Your task to perform on an android device: Empty the shopping cart on bestbuy.com. Image 0: 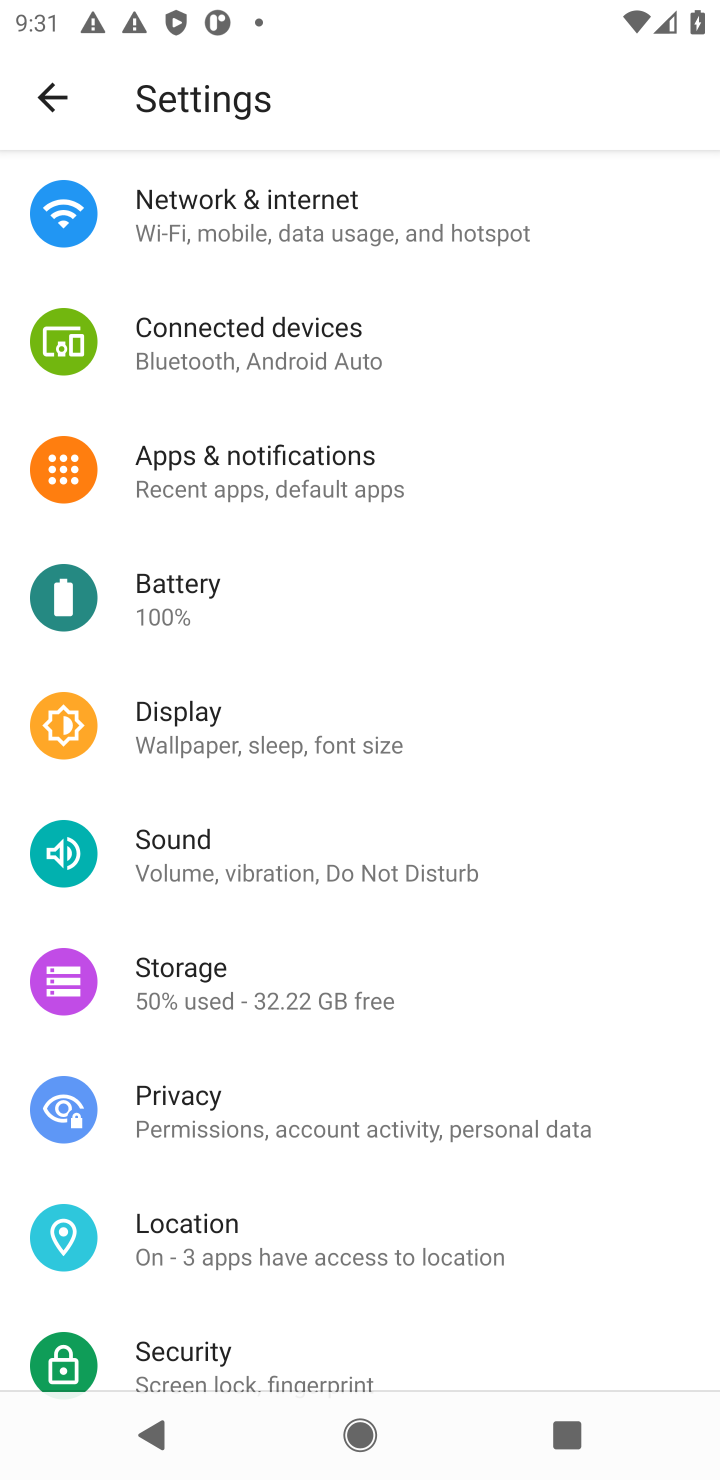
Step 0: press home button
Your task to perform on an android device: Empty the shopping cart on bestbuy.com. Image 1: 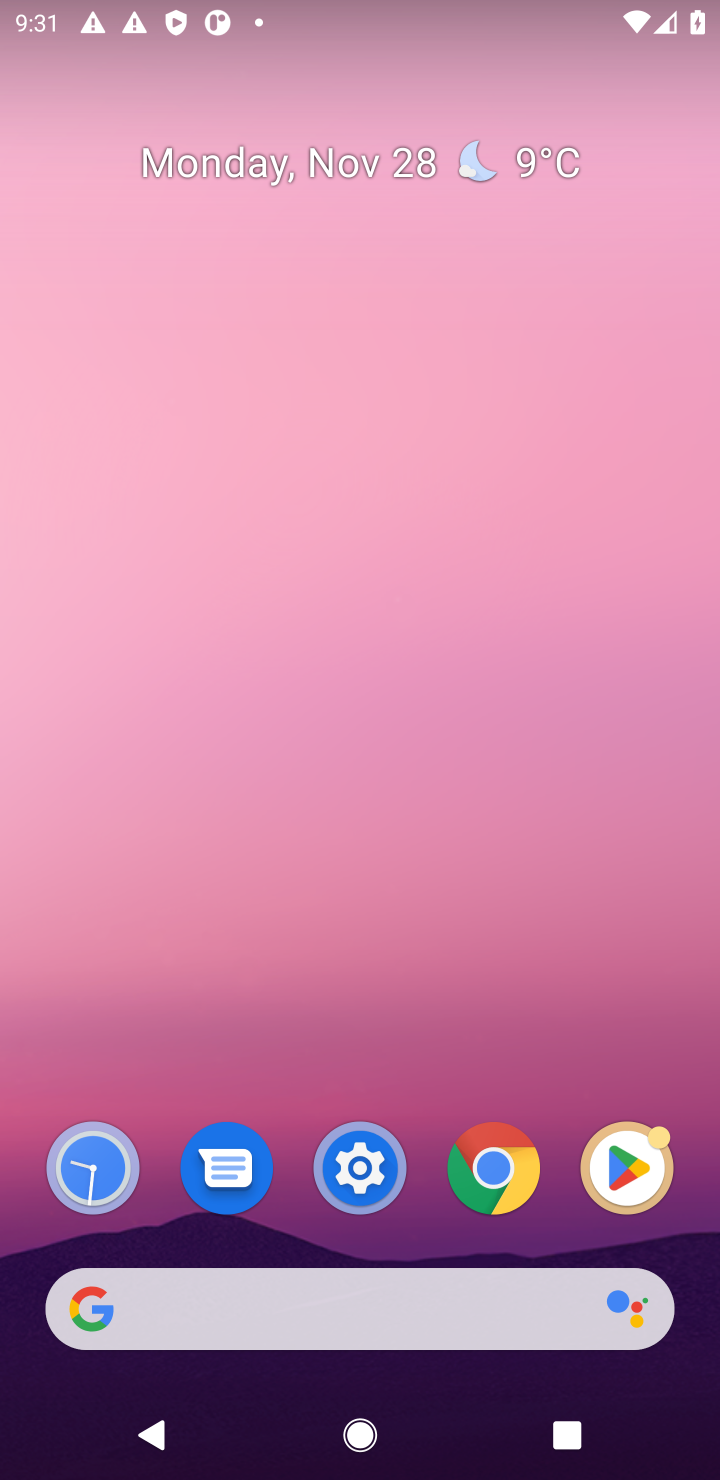
Step 1: click (219, 1329)
Your task to perform on an android device: Empty the shopping cart on bestbuy.com. Image 2: 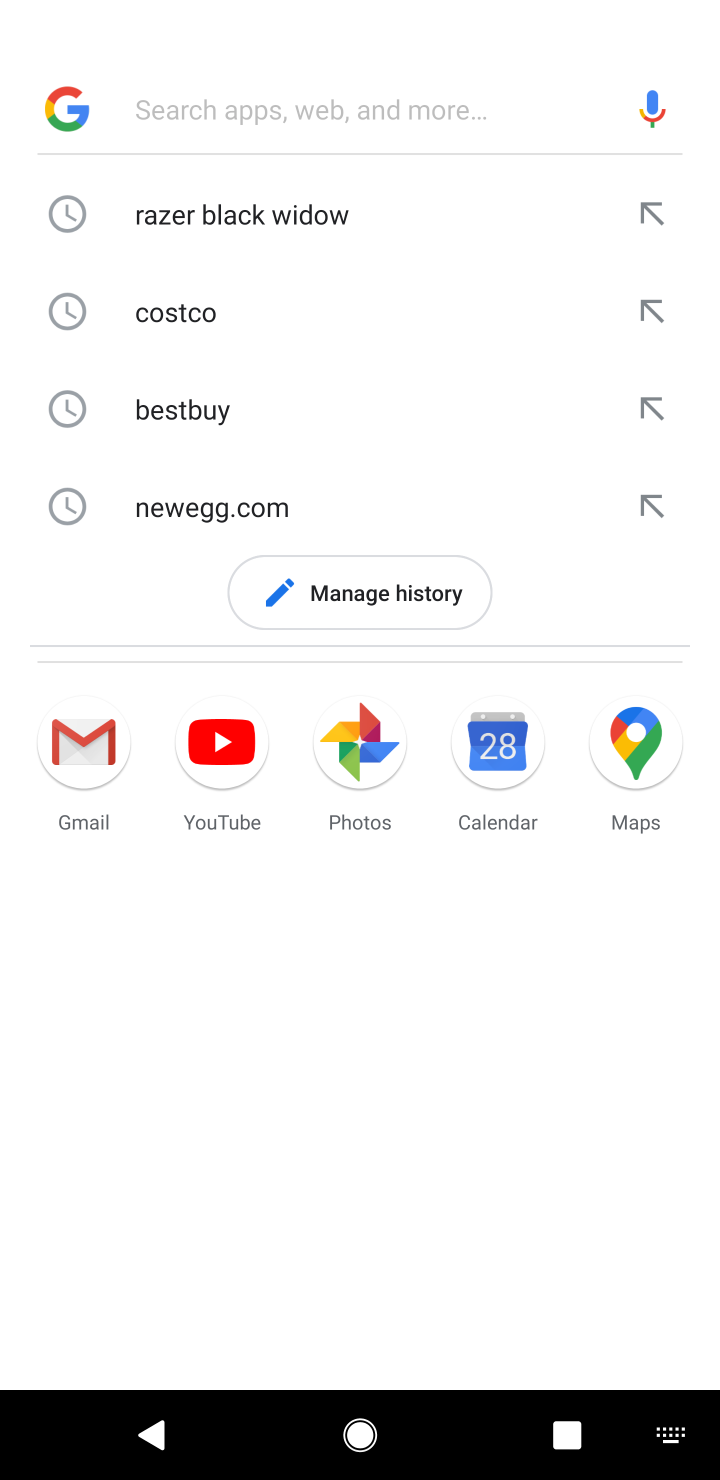
Step 2: type "bestbuy"
Your task to perform on an android device: Empty the shopping cart on bestbuy.com. Image 3: 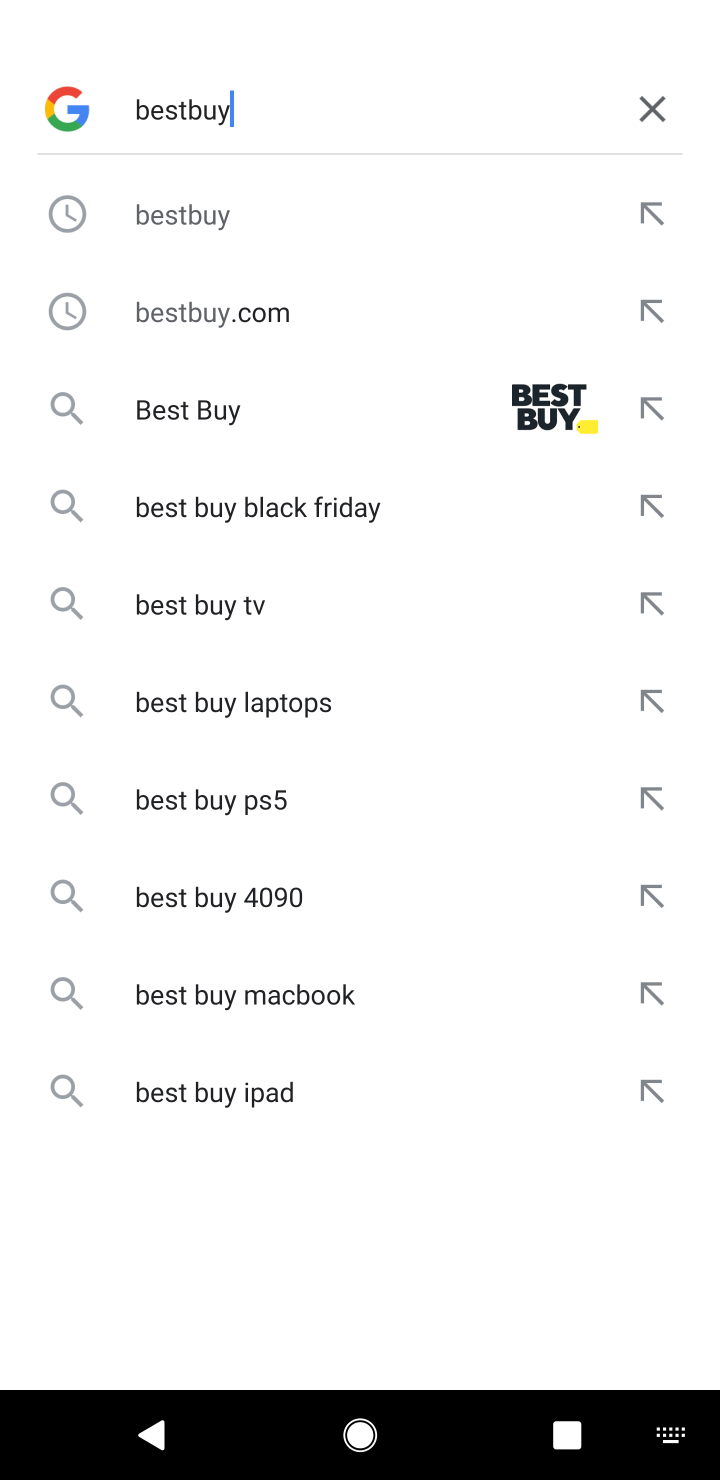
Step 3: click (257, 387)
Your task to perform on an android device: Empty the shopping cart on bestbuy.com. Image 4: 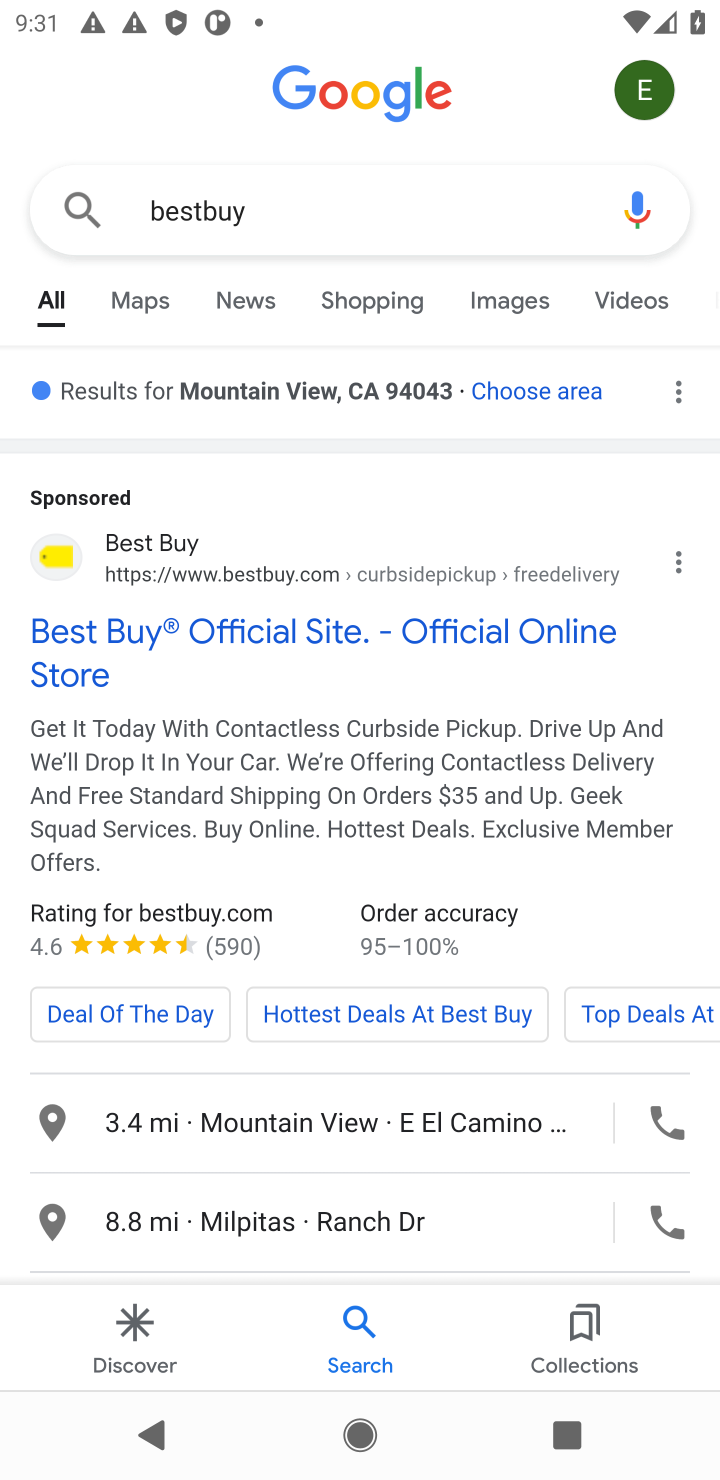
Step 4: click (143, 617)
Your task to perform on an android device: Empty the shopping cart on bestbuy.com. Image 5: 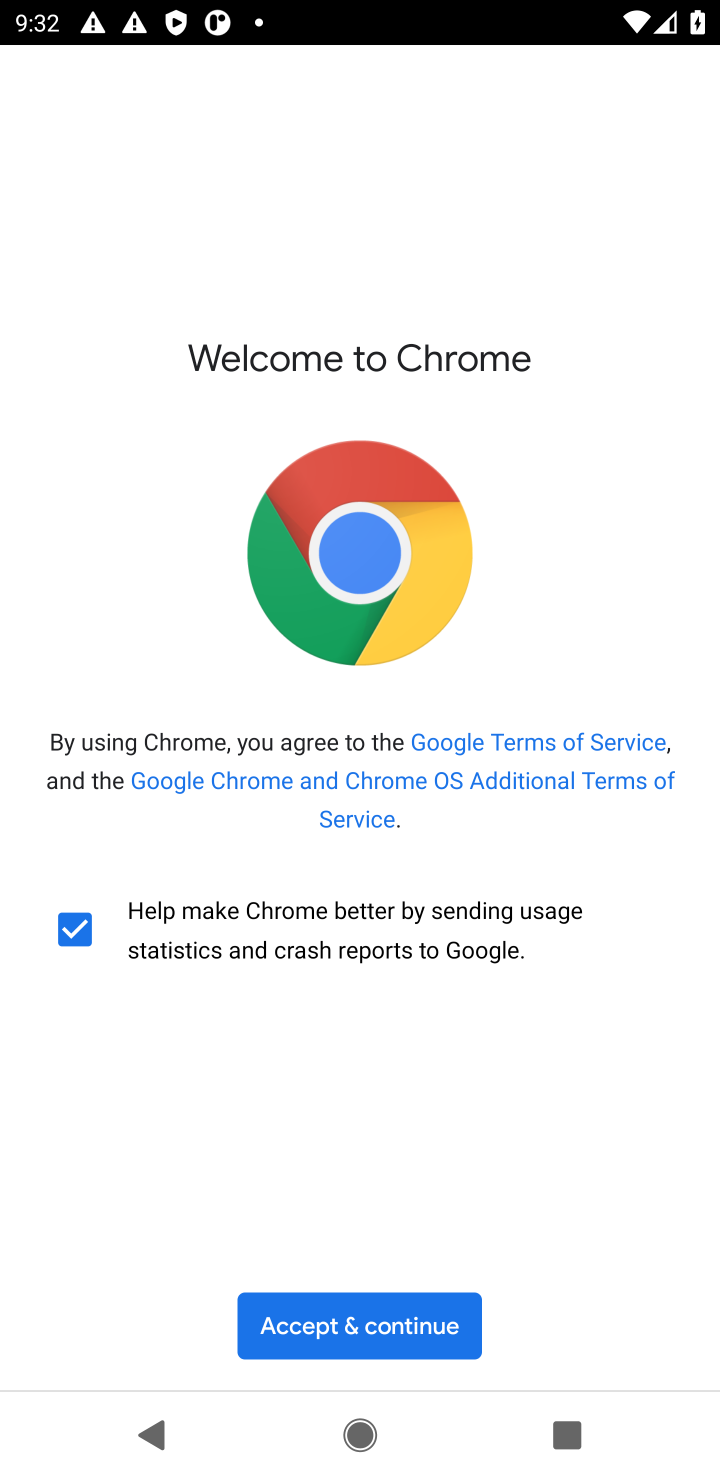
Step 5: click (283, 1303)
Your task to perform on an android device: Empty the shopping cart on bestbuy.com. Image 6: 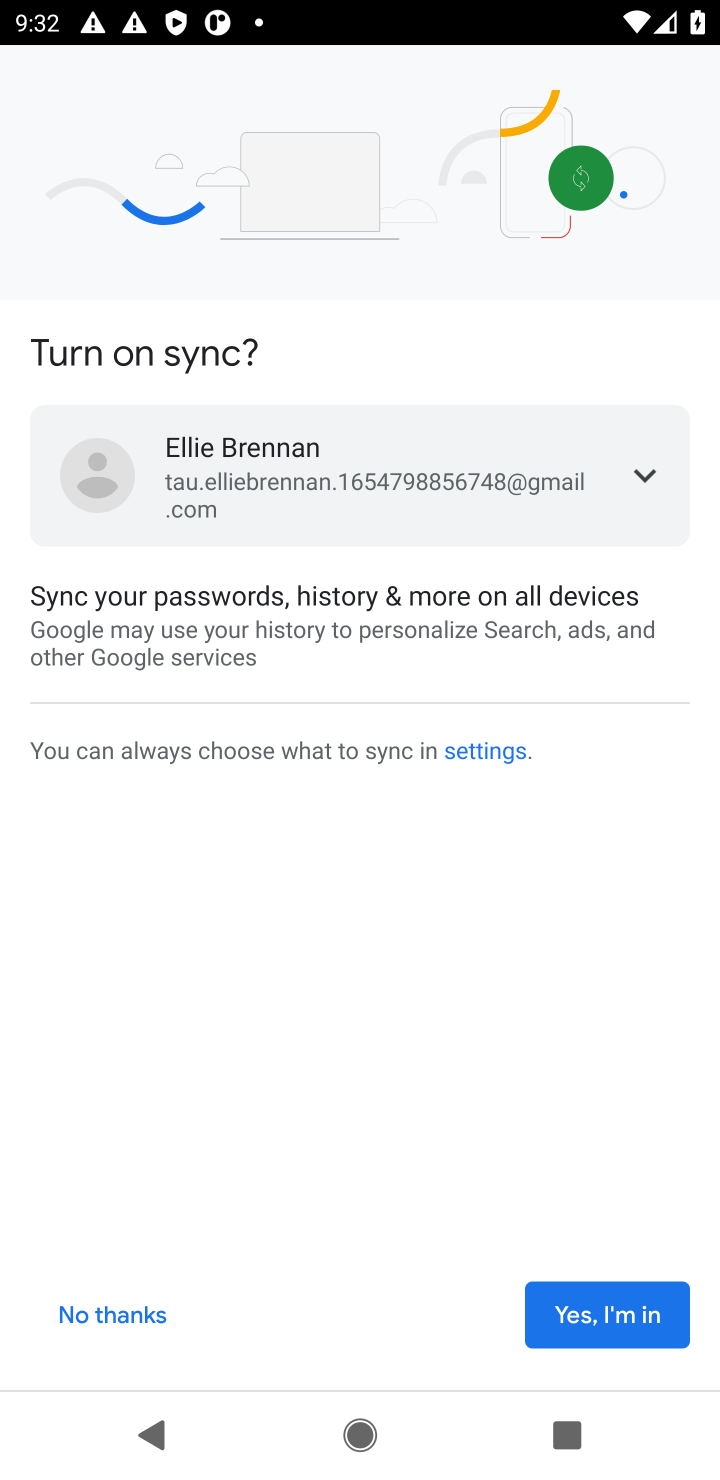
Step 6: click (566, 1331)
Your task to perform on an android device: Empty the shopping cart on bestbuy.com. Image 7: 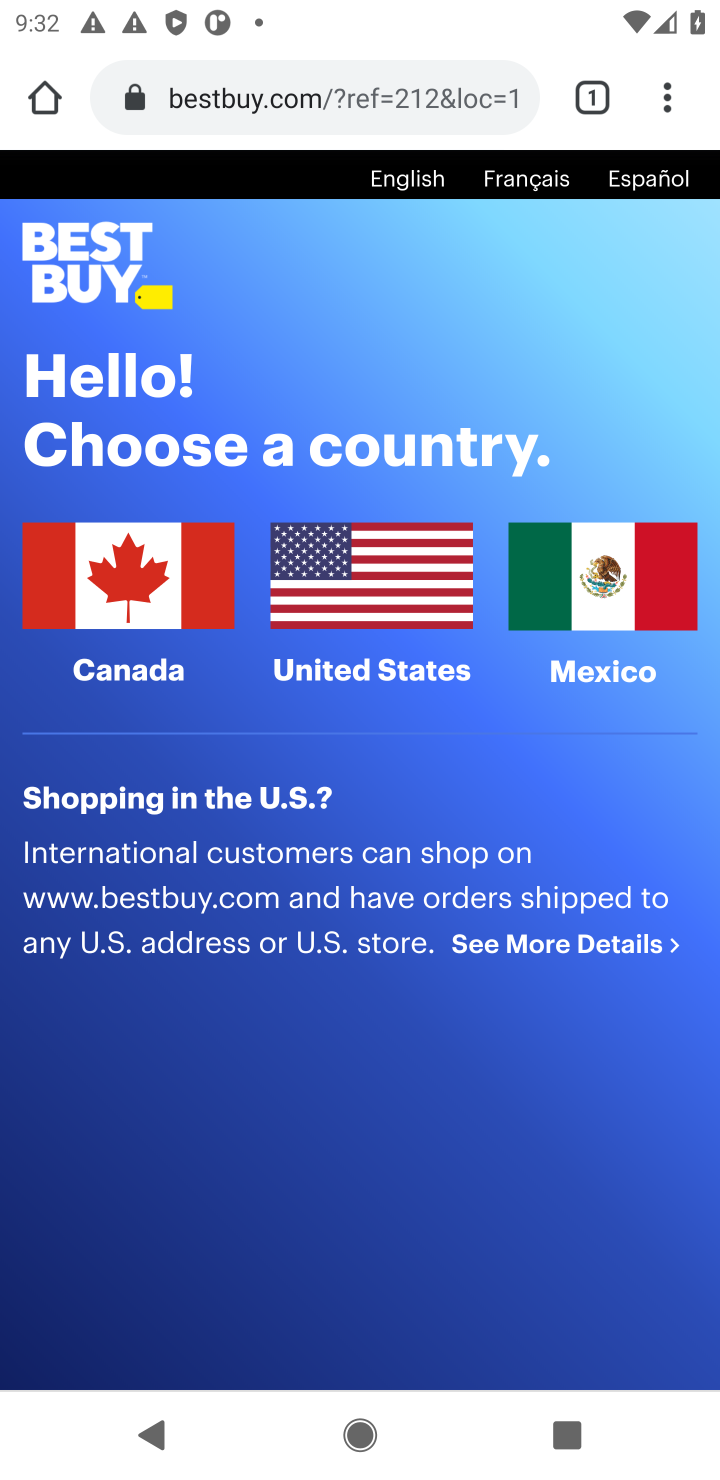
Step 7: click (137, 660)
Your task to perform on an android device: Empty the shopping cart on bestbuy.com. Image 8: 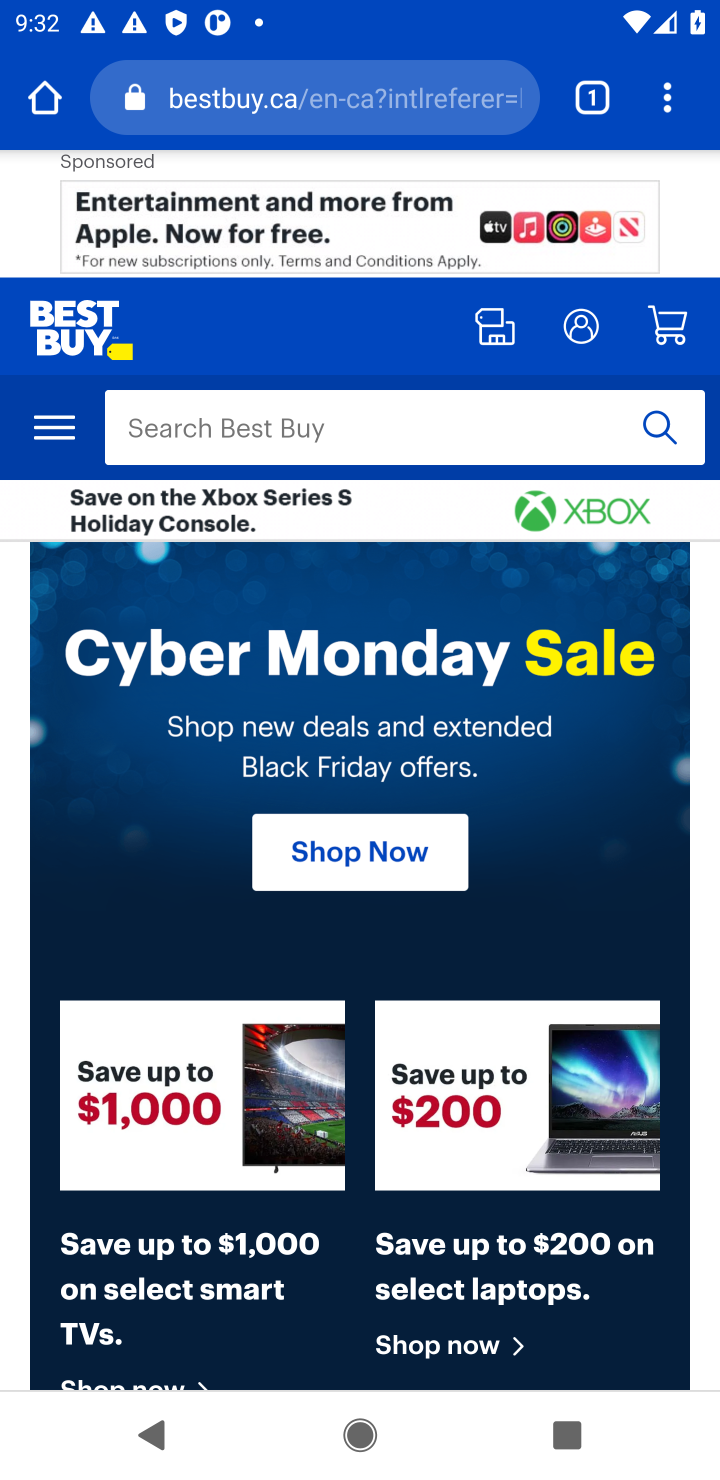
Step 8: click (278, 441)
Your task to perform on an android device: Empty the shopping cart on bestbuy.com. Image 9: 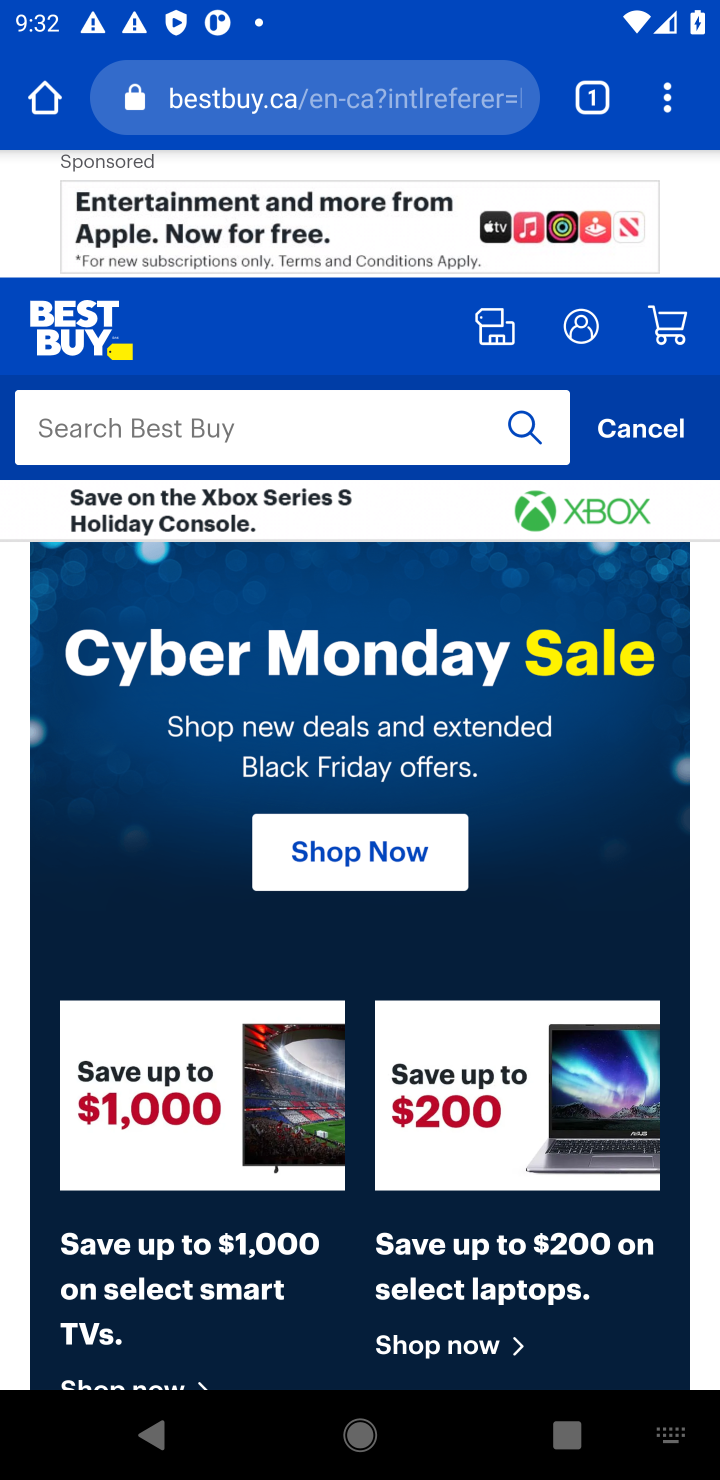
Step 9: click (671, 346)
Your task to perform on an android device: Empty the shopping cart on bestbuy.com. Image 10: 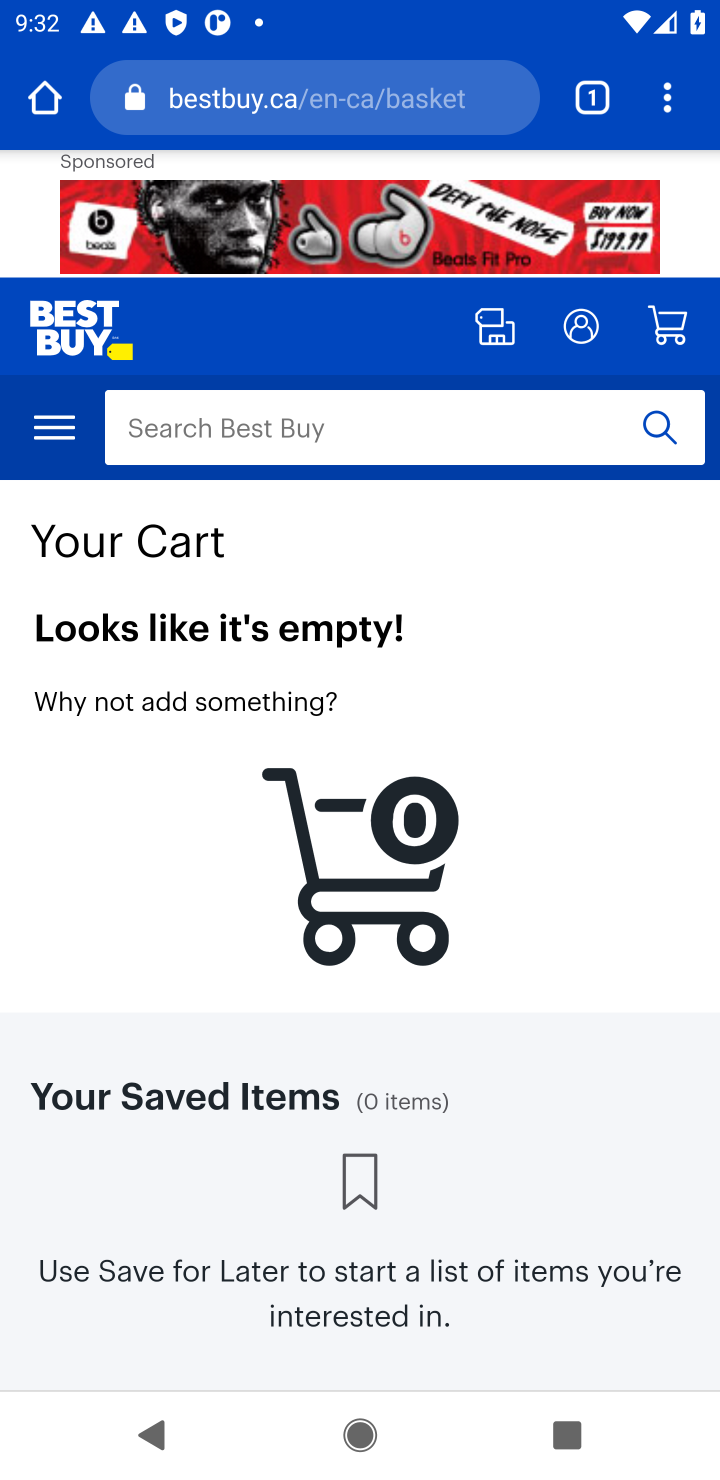
Step 10: click (217, 419)
Your task to perform on an android device: Empty the shopping cart on bestbuy.com. Image 11: 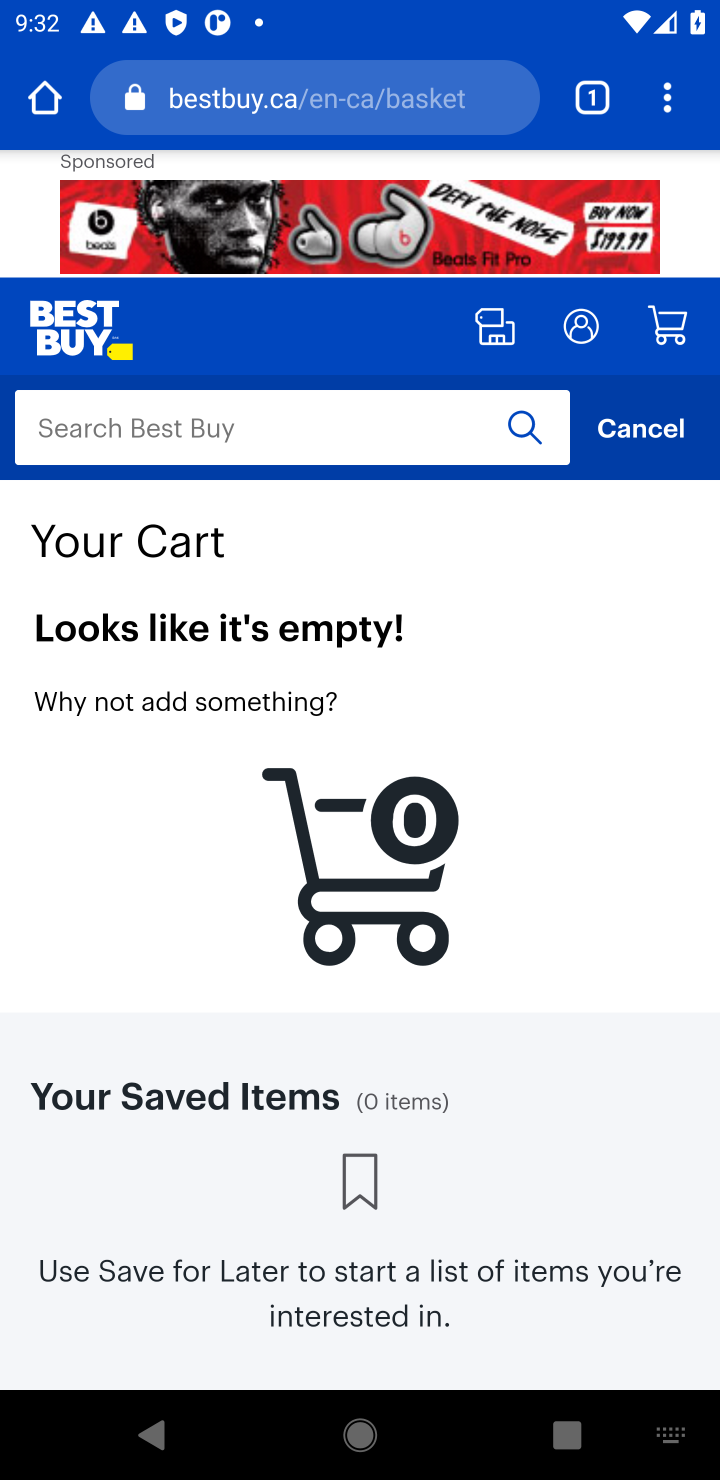
Step 11: task complete